Your task to perform on an android device: Check the weather Image 0: 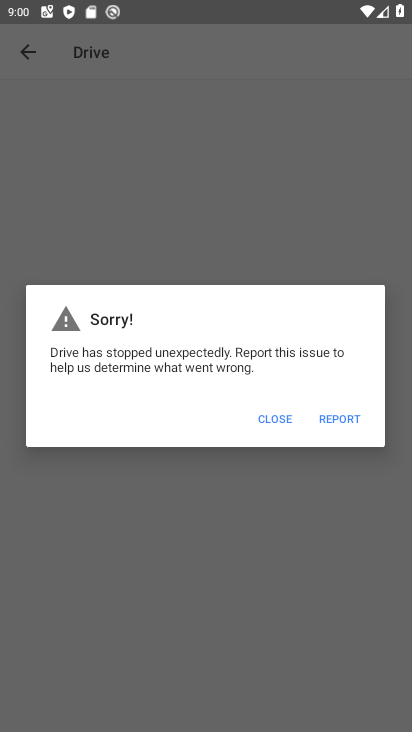
Step 0: press home button
Your task to perform on an android device: Check the weather Image 1: 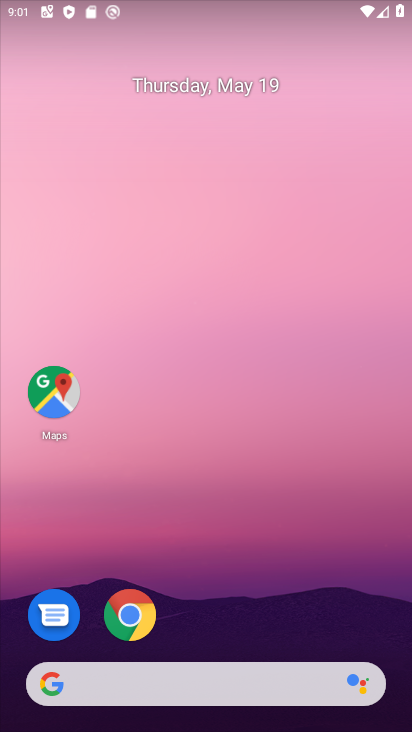
Step 1: click (136, 586)
Your task to perform on an android device: Check the weather Image 2: 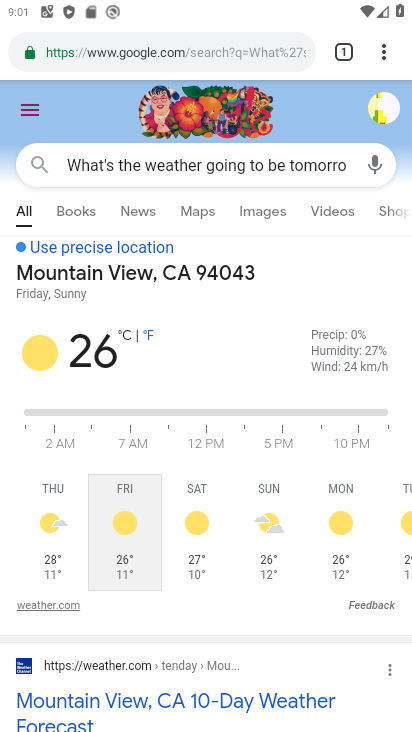
Step 2: click (133, 604)
Your task to perform on an android device: Check the weather Image 3: 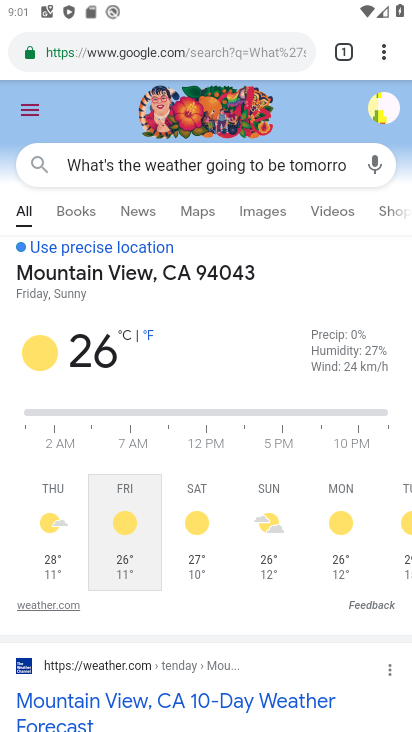
Step 3: click (247, 62)
Your task to perform on an android device: Check the weather Image 4: 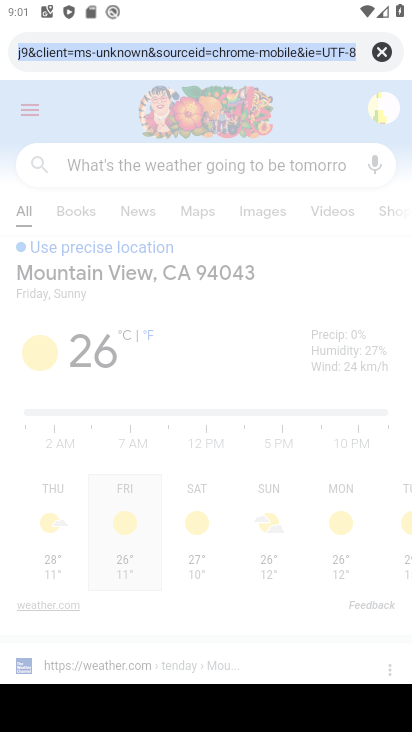
Step 4: click (386, 54)
Your task to perform on an android device: Check the weather Image 5: 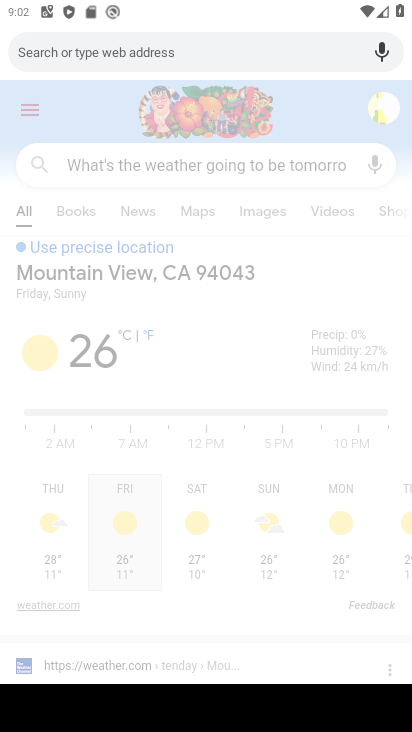
Step 5: type " weather"
Your task to perform on an android device: Check the weather Image 6: 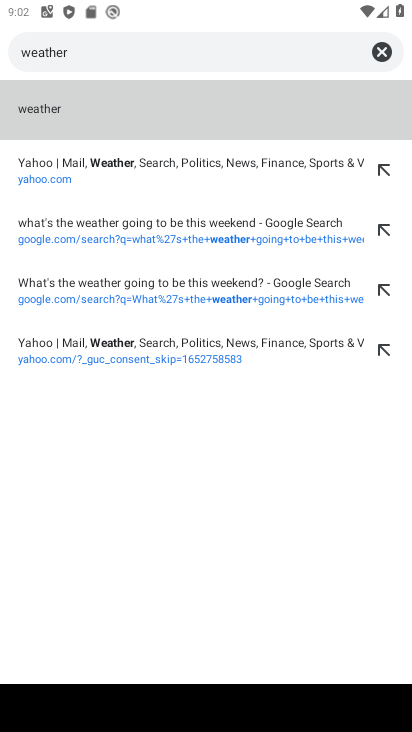
Step 6: click (84, 98)
Your task to perform on an android device: Check the weather Image 7: 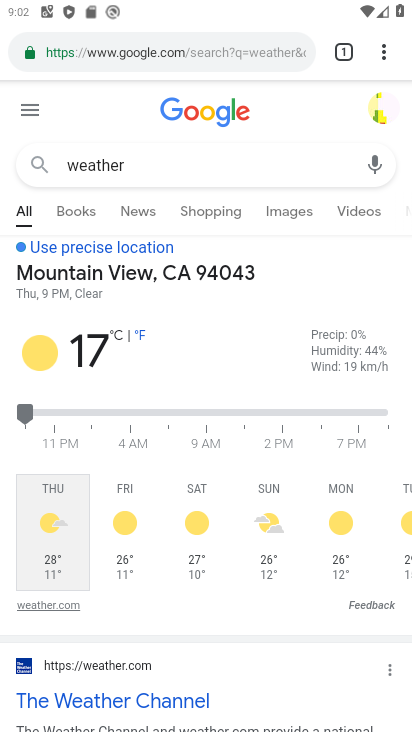
Step 7: task complete